Your task to perform on an android device: Search for sushi restaurants on Maps Image 0: 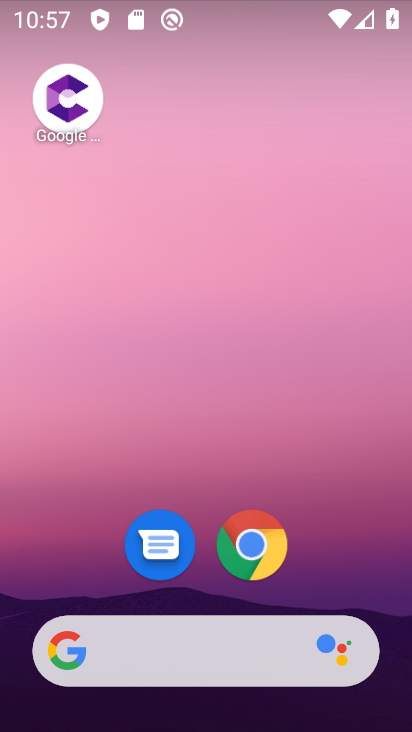
Step 0: drag from (290, 575) to (202, 10)
Your task to perform on an android device: Search for sushi restaurants on Maps Image 1: 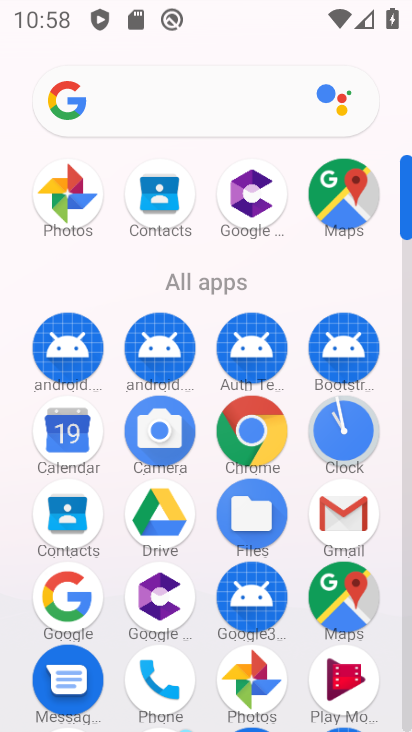
Step 1: click (342, 214)
Your task to perform on an android device: Search for sushi restaurants on Maps Image 2: 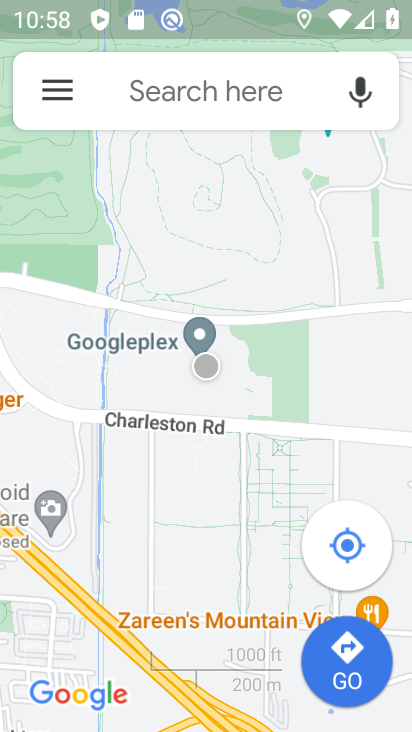
Step 2: click (183, 90)
Your task to perform on an android device: Search for sushi restaurants on Maps Image 3: 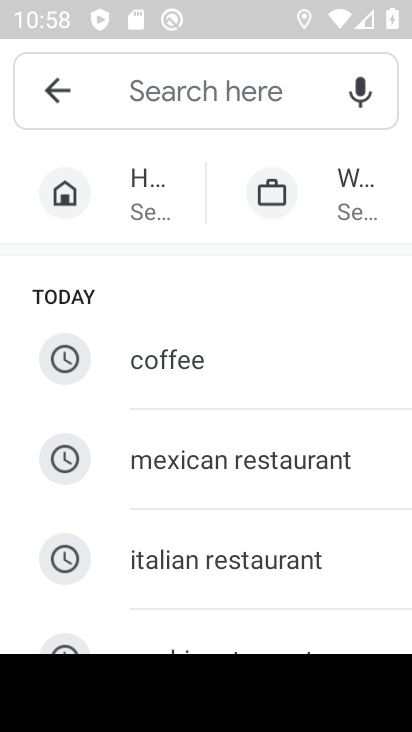
Step 3: drag from (263, 576) to (228, 350)
Your task to perform on an android device: Search for sushi restaurants on Maps Image 4: 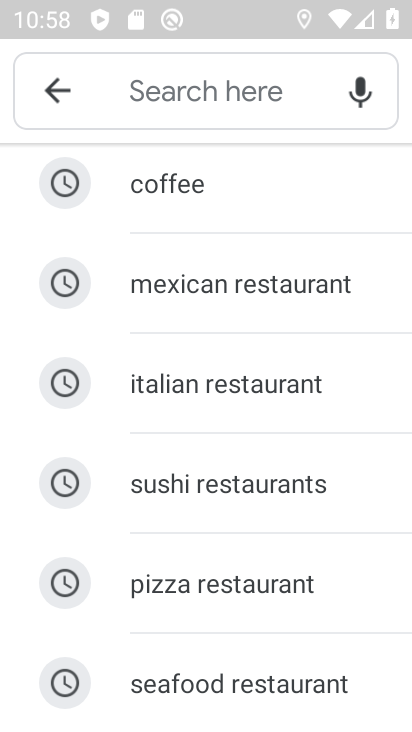
Step 4: click (259, 478)
Your task to perform on an android device: Search for sushi restaurants on Maps Image 5: 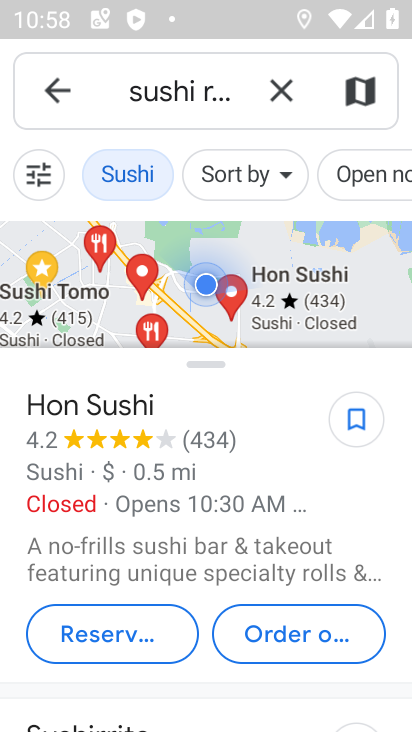
Step 5: task complete